Your task to perform on an android device: Go to Amazon Image 0: 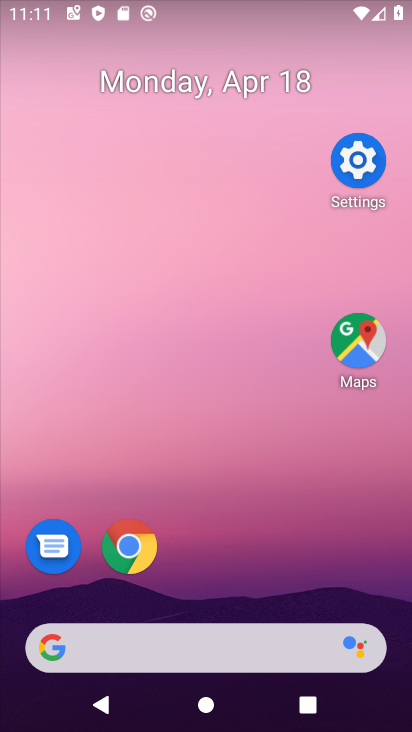
Step 0: drag from (255, 709) to (155, 0)
Your task to perform on an android device: Go to Amazon Image 1: 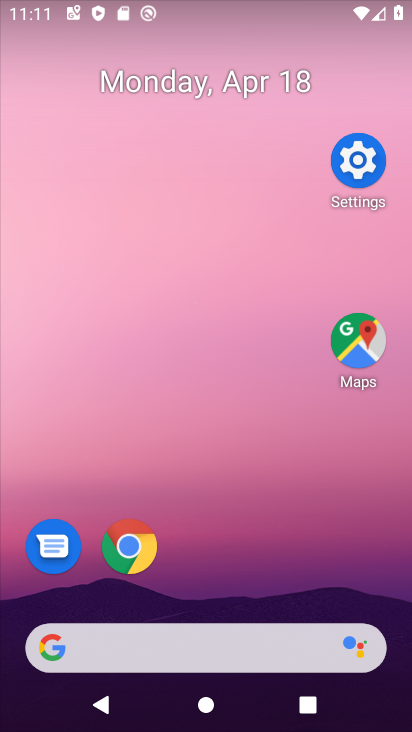
Step 1: drag from (301, 511) to (108, 122)
Your task to perform on an android device: Go to Amazon Image 2: 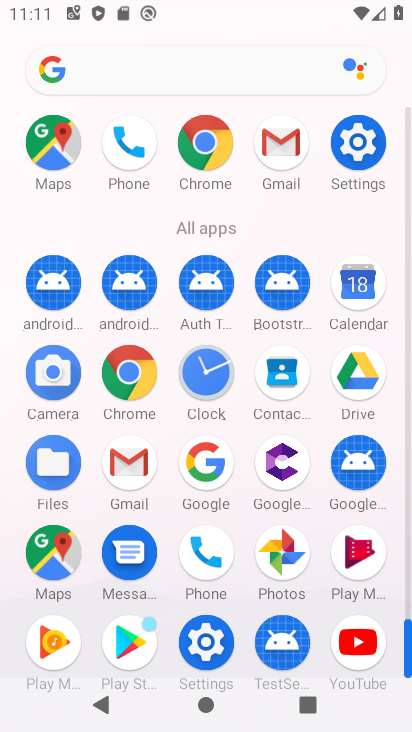
Step 2: click (194, 139)
Your task to perform on an android device: Go to Amazon Image 3: 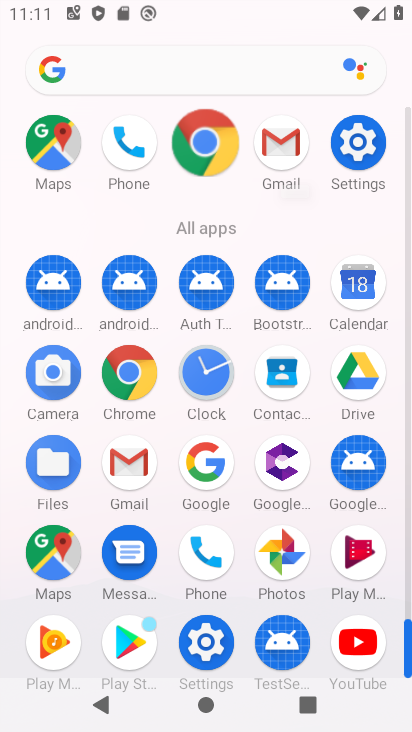
Step 3: click (194, 139)
Your task to perform on an android device: Go to Amazon Image 4: 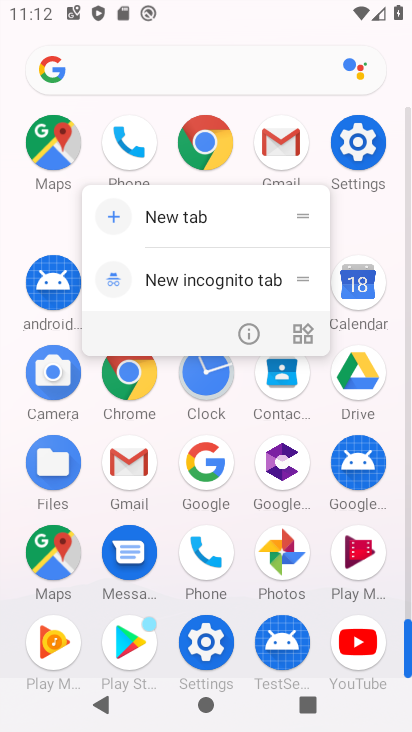
Step 4: click (200, 138)
Your task to perform on an android device: Go to Amazon Image 5: 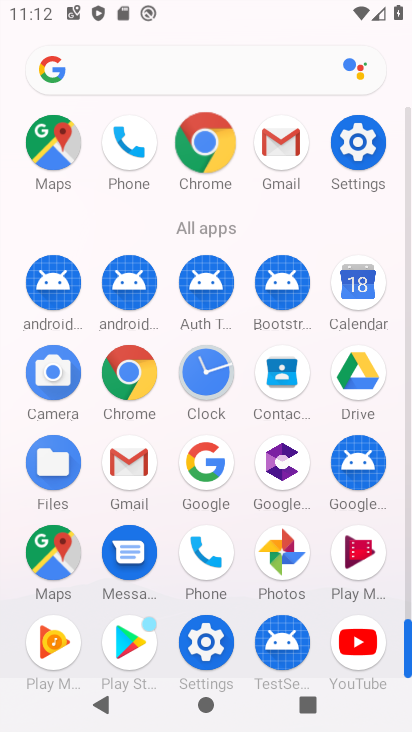
Step 5: click (202, 138)
Your task to perform on an android device: Go to Amazon Image 6: 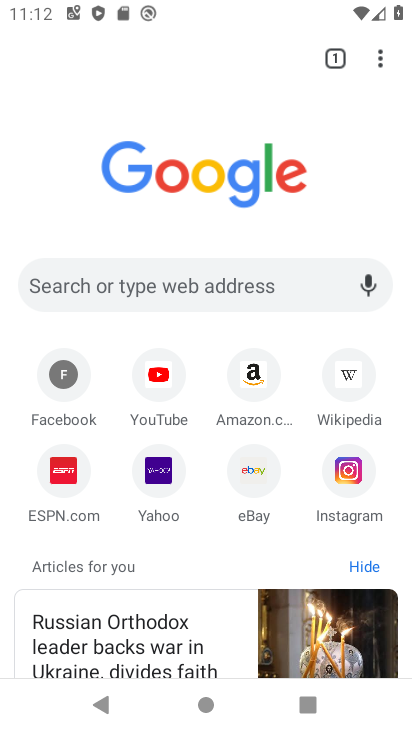
Step 6: click (242, 373)
Your task to perform on an android device: Go to Amazon Image 7: 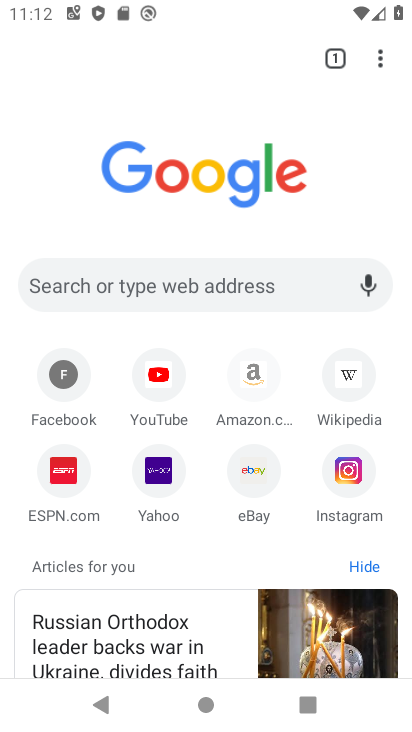
Step 7: click (240, 368)
Your task to perform on an android device: Go to Amazon Image 8: 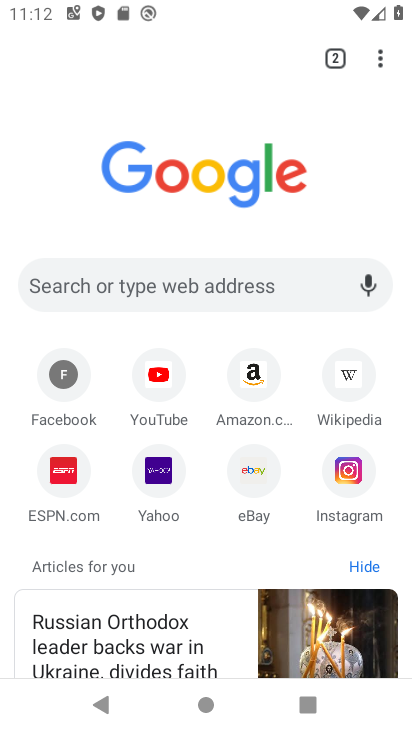
Step 8: click (247, 369)
Your task to perform on an android device: Go to Amazon Image 9: 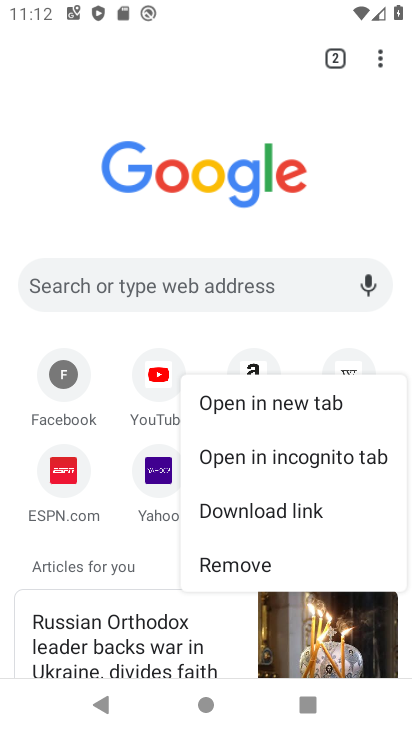
Step 9: click (247, 369)
Your task to perform on an android device: Go to Amazon Image 10: 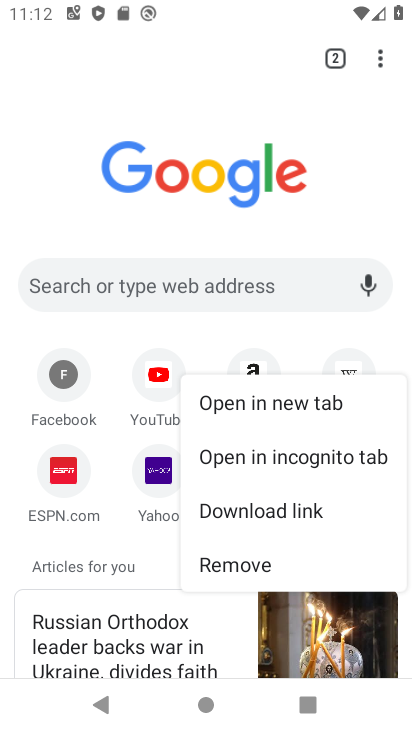
Step 10: click (247, 369)
Your task to perform on an android device: Go to Amazon Image 11: 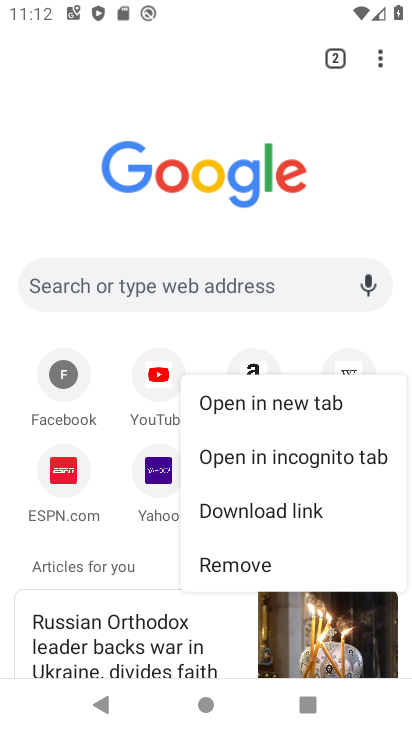
Step 11: click (247, 347)
Your task to perform on an android device: Go to Amazon Image 12: 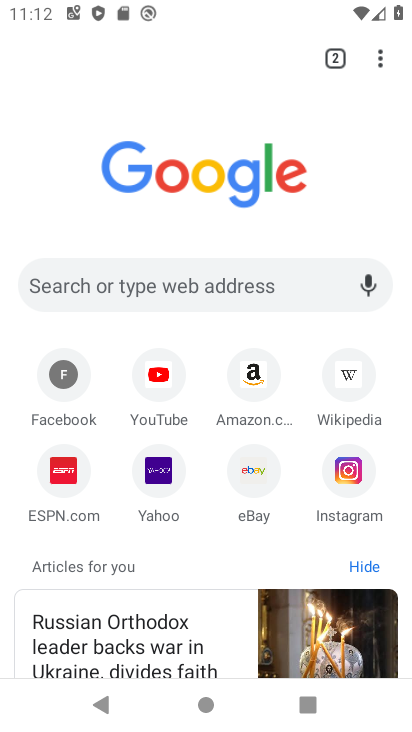
Step 12: click (246, 343)
Your task to perform on an android device: Go to Amazon Image 13: 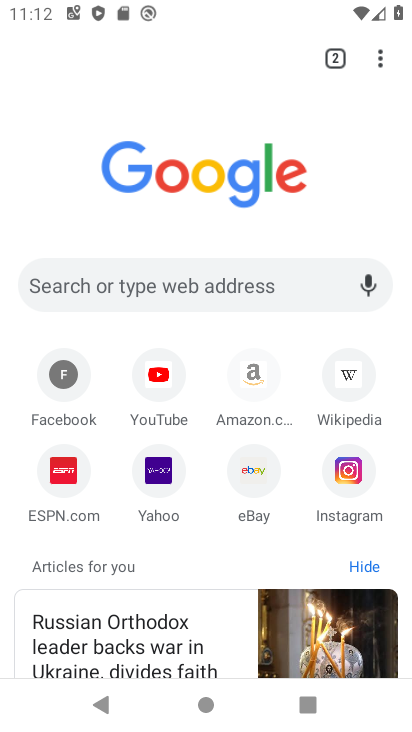
Step 13: click (262, 373)
Your task to perform on an android device: Go to Amazon Image 14: 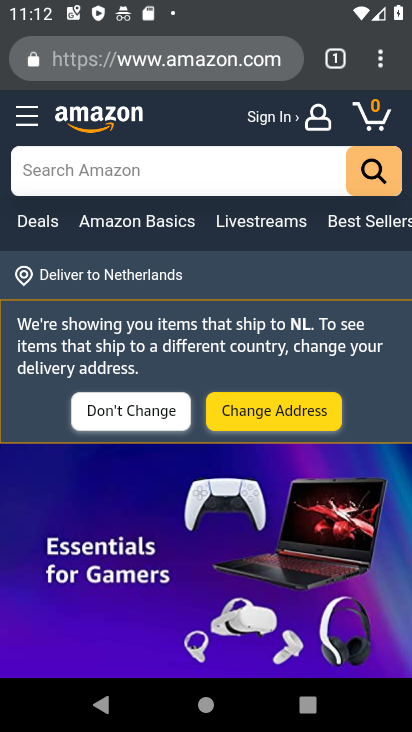
Step 14: click (48, 187)
Your task to perform on an android device: Go to Amazon Image 15: 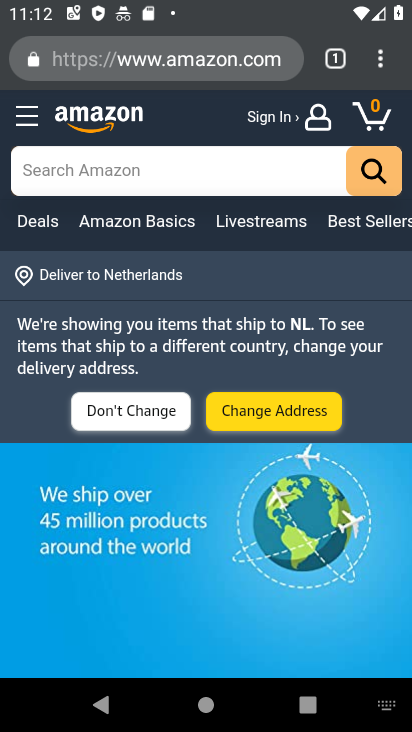
Step 15: task complete